Your task to perform on an android device: When is my next meeting? Image 0: 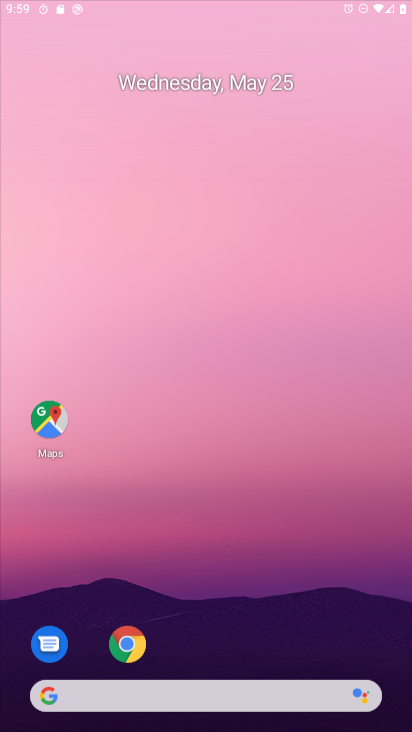
Step 0: drag from (385, 467) to (341, 25)
Your task to perform on an android device: When is my next meeting? Image 1: 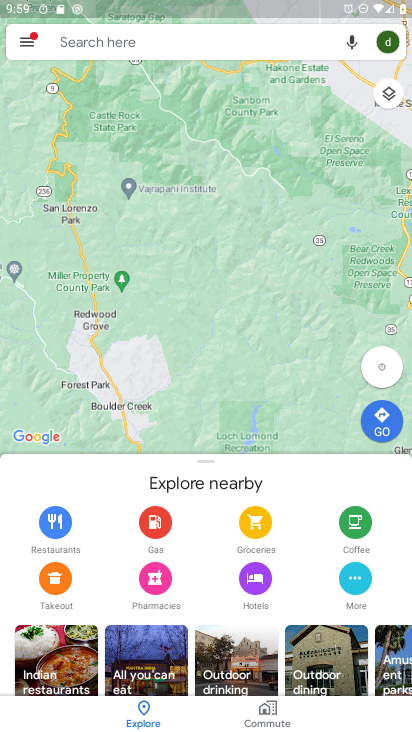
Step 1: press home button
Your task to perform on an android device: When is my next meeting? Image 2: 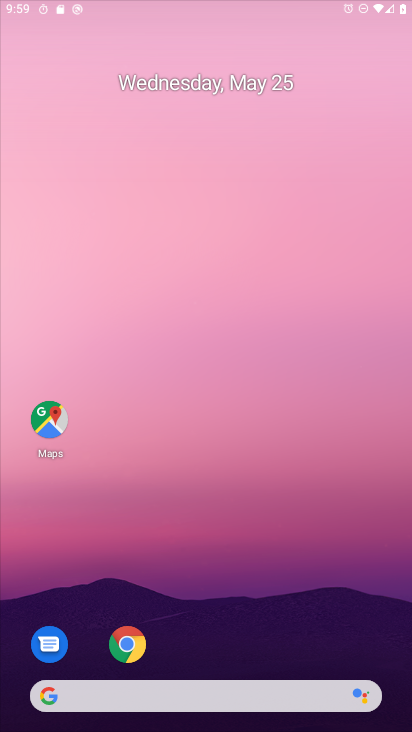
Step 2: drag from (365, 628) to (262, 42)
Your task to perform on an android device: When is my next meeting? Image 3: 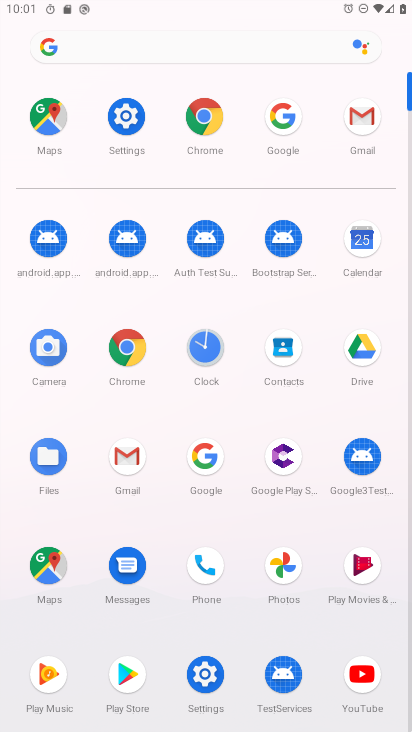
Step 3: click (350, 238)
Your task to perform on an android device: When is my next meeting? Image 4: 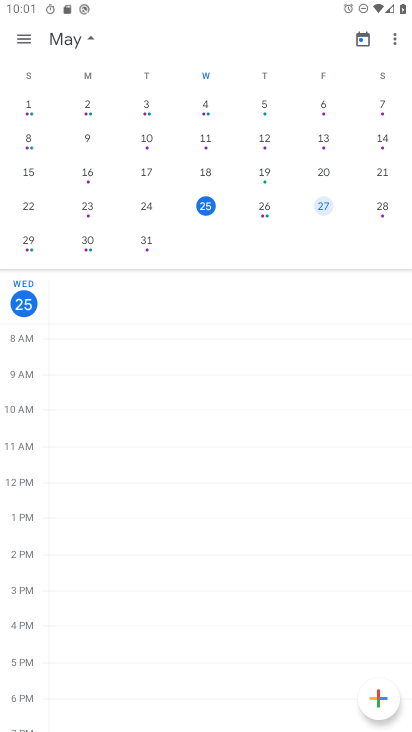
Step 4: task complete